Your task to perform on an android device: Search for a 1/2 in. x 1/2 in. x 24 in. 600 grit sander on Lowes.com Image 0: 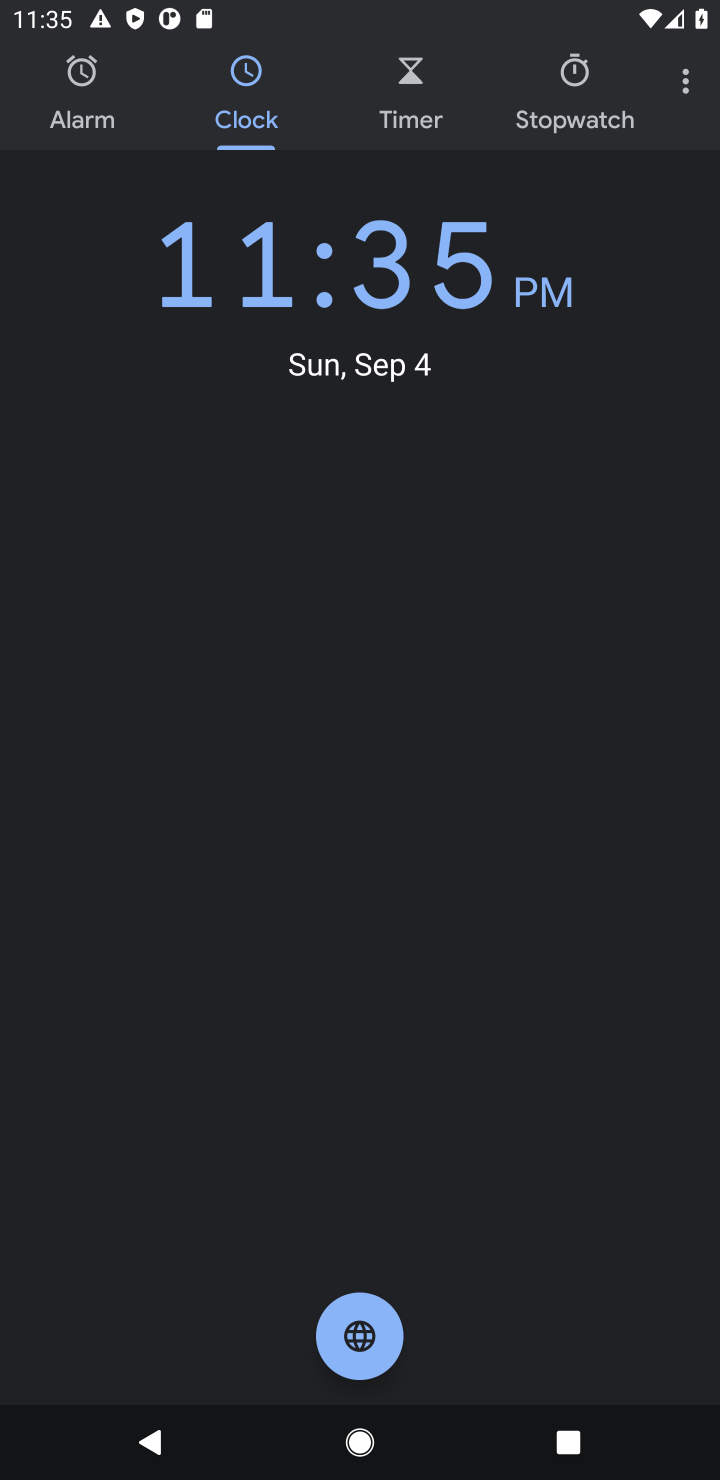
Step 0: press home button
Your task to perform on an android device: Search for a 1/2 in. x 1/2 in. x 24 in. 600 grit sander on Lowes.com Image 1: 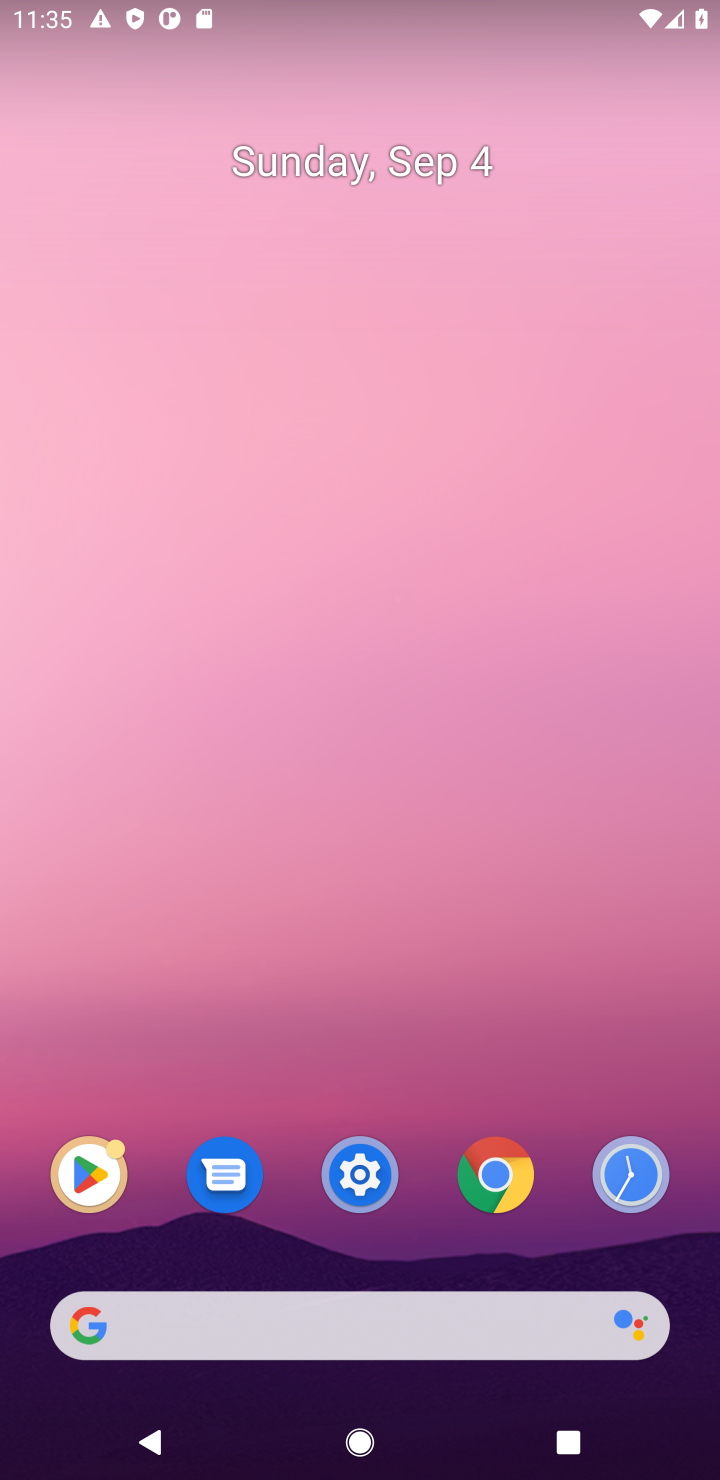
Step 1: click (346, 1323)
Your task to perform on an android device: Search for a 1/2 in. x 1/2 in. x 24 in. 600 grit sander on Lowes.com Image 2: 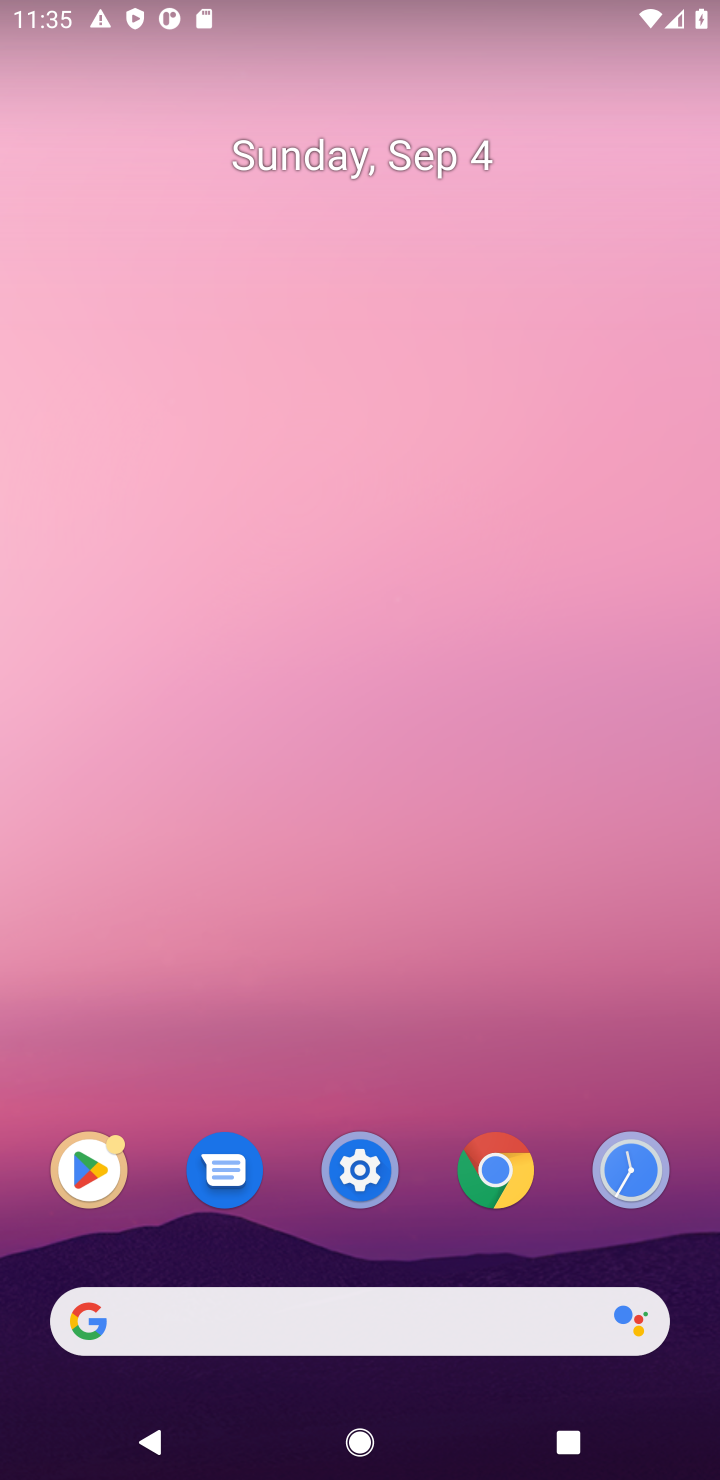
Step 2: type "Lowes.com"
Your task to perform on an android device: Search for a 1/2 in. x 1/2 in. x 24 in. 600 grit sander on Lowes.com Image 3: 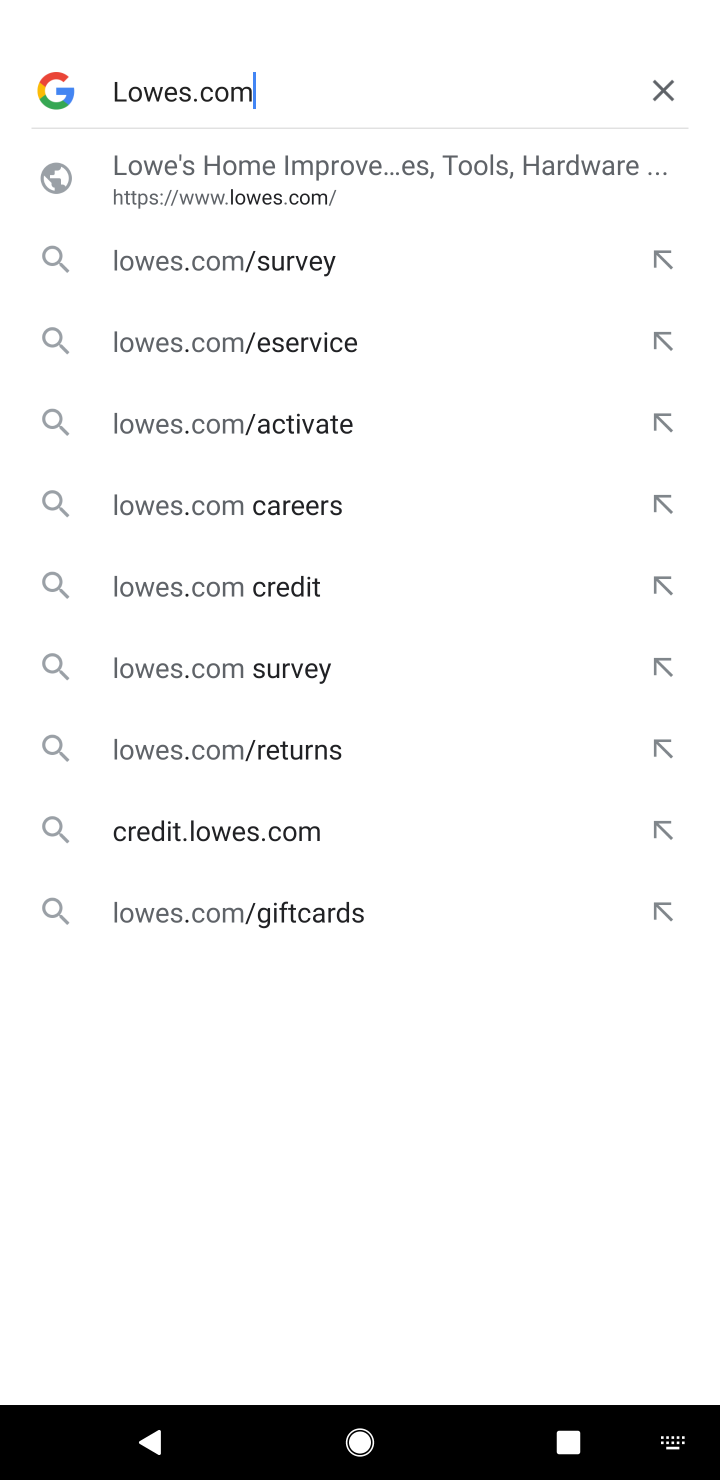
Step 3: click (357, 216)
Your task to perform on an android device: Search for a 1/2 in. x 1/2 in. x 24 in. 600 grit sander on Lowes.com Image 4: 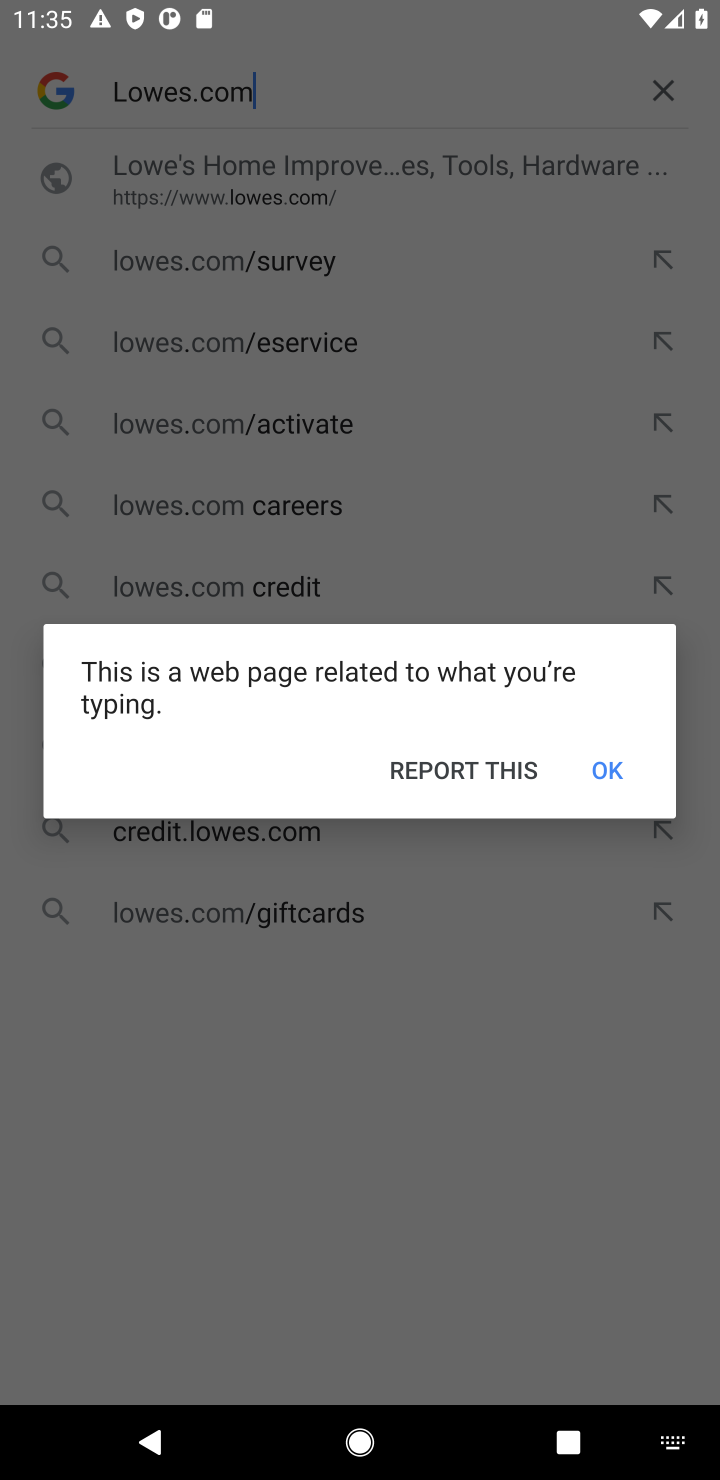
Step 4: click (617, 766)
Your task to perform on an android device: Search for a 1/2 in. x 1/2 in. x 24 in. 600 grit sander on Lowes.com Image 5: 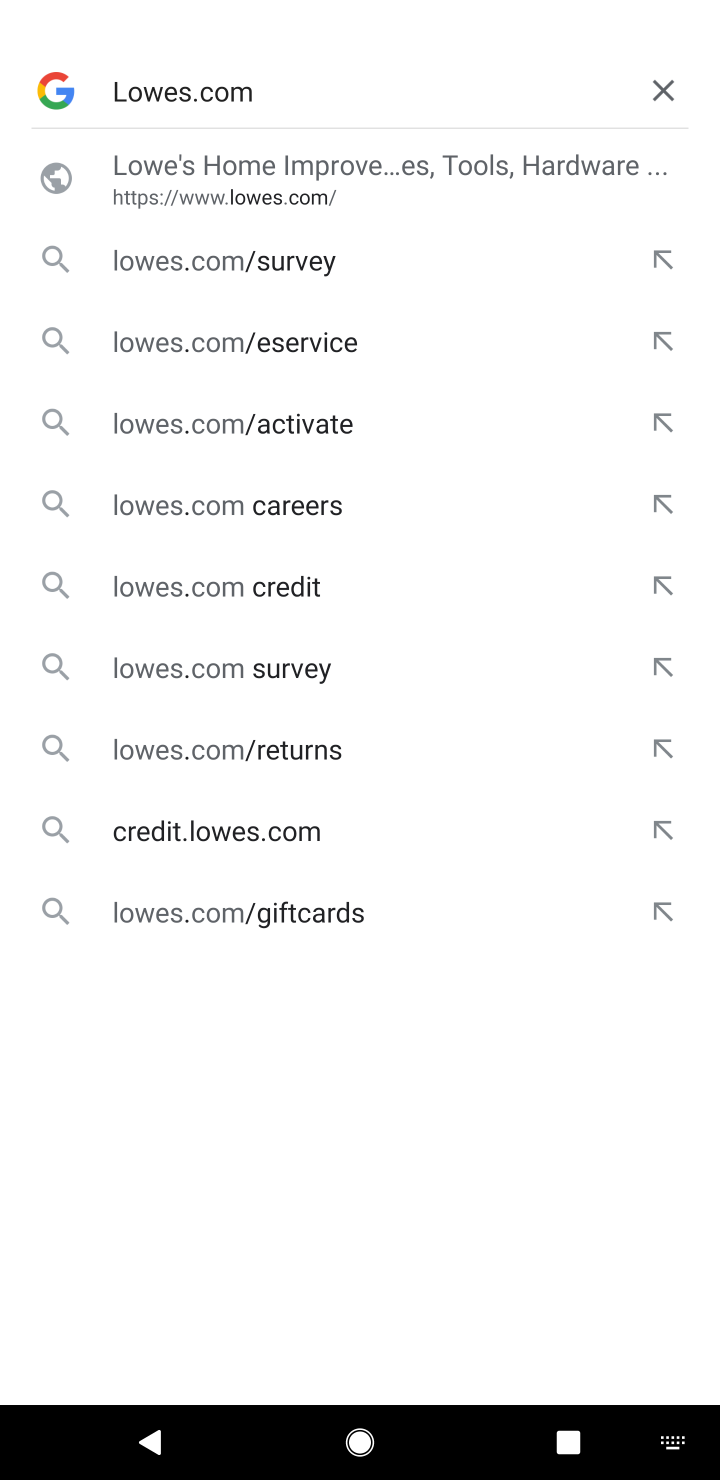
Step 5: click (308, 172)
Your task to perform on an android device: Search for a 1/2 in. x 1/2 in. x 24 in. 600 grit sander on Lowes.com Image 6: 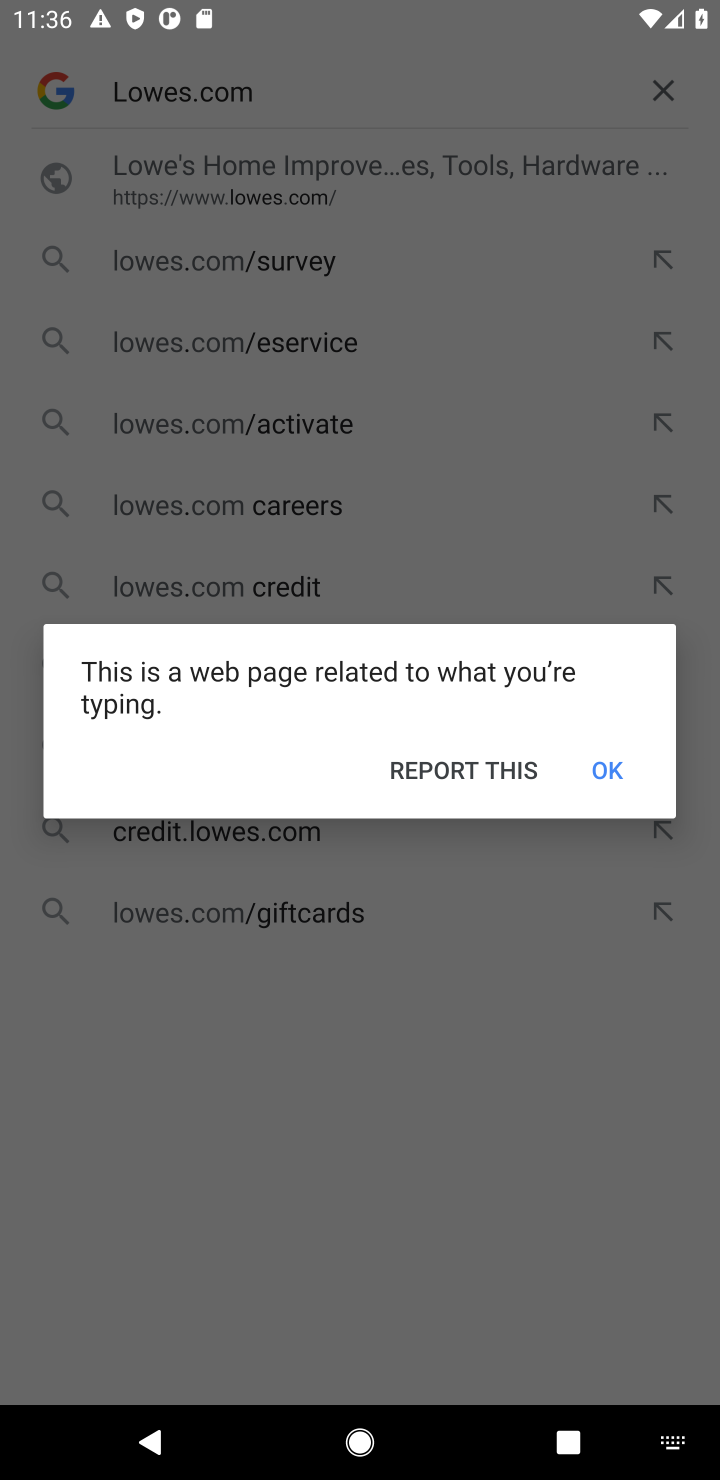
Step 6: click (618, 764)
Your task to perform on an android device: Search for a 1/2 in. x 1/2 in. x 24 in. 600 grit sander on Lowes.com Image 7: 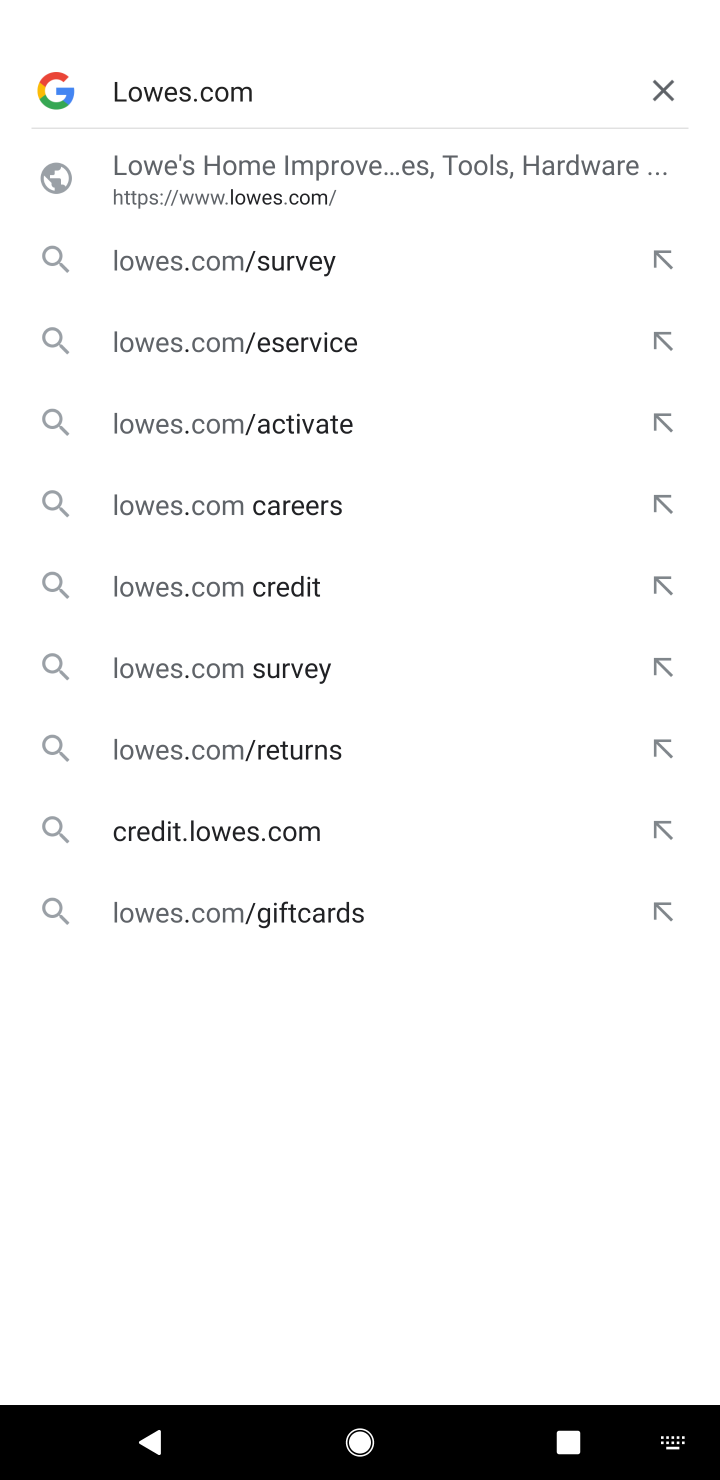
Step 7: click (384, 200)
Your task to perform on an android device: Search for a 1/2 in. x 1/2 in. x 24 in. 600 grit sander on Lowes.com Image 8: 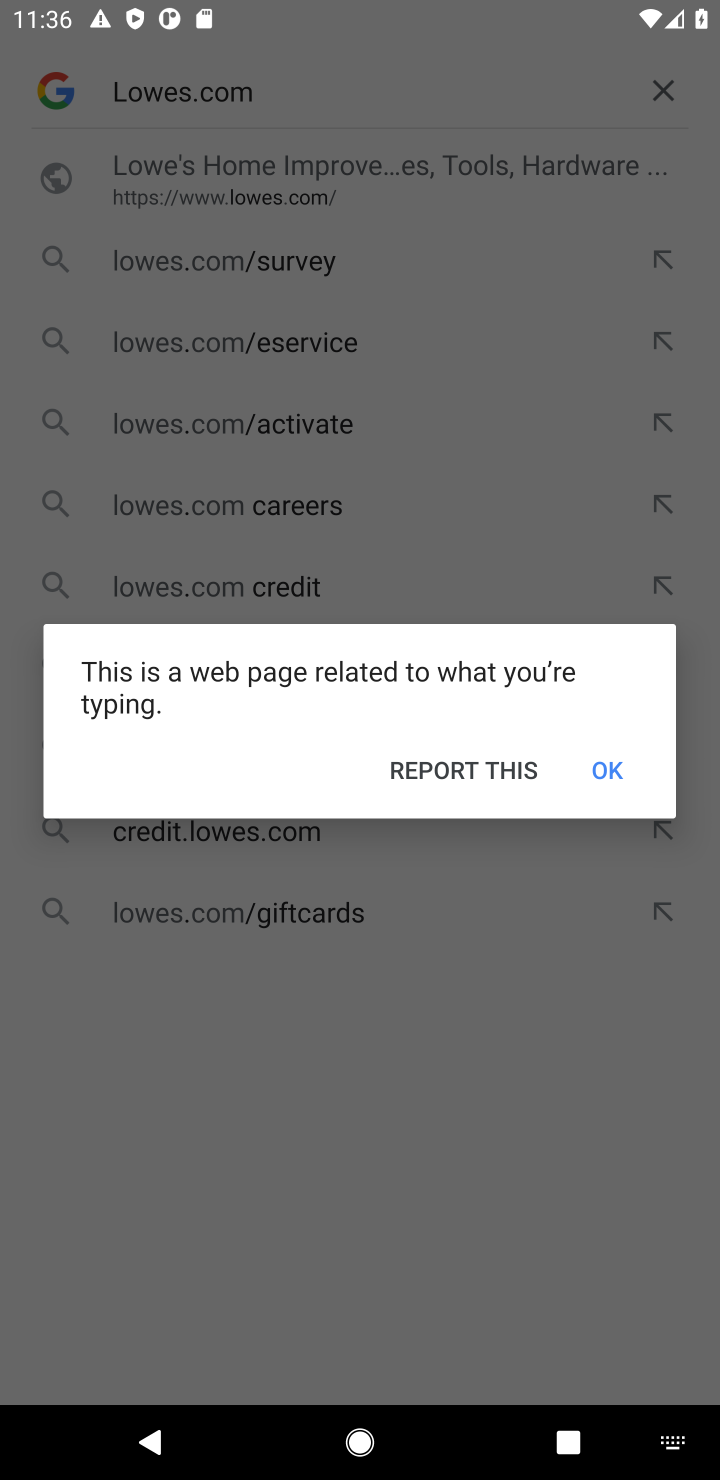
Step 8: click (579, 756)
Your task to perform on an android device: Search for a 1/2 in. x 1/2 in. x 24 in. 600 grit sander on Lowes.com Image 9: 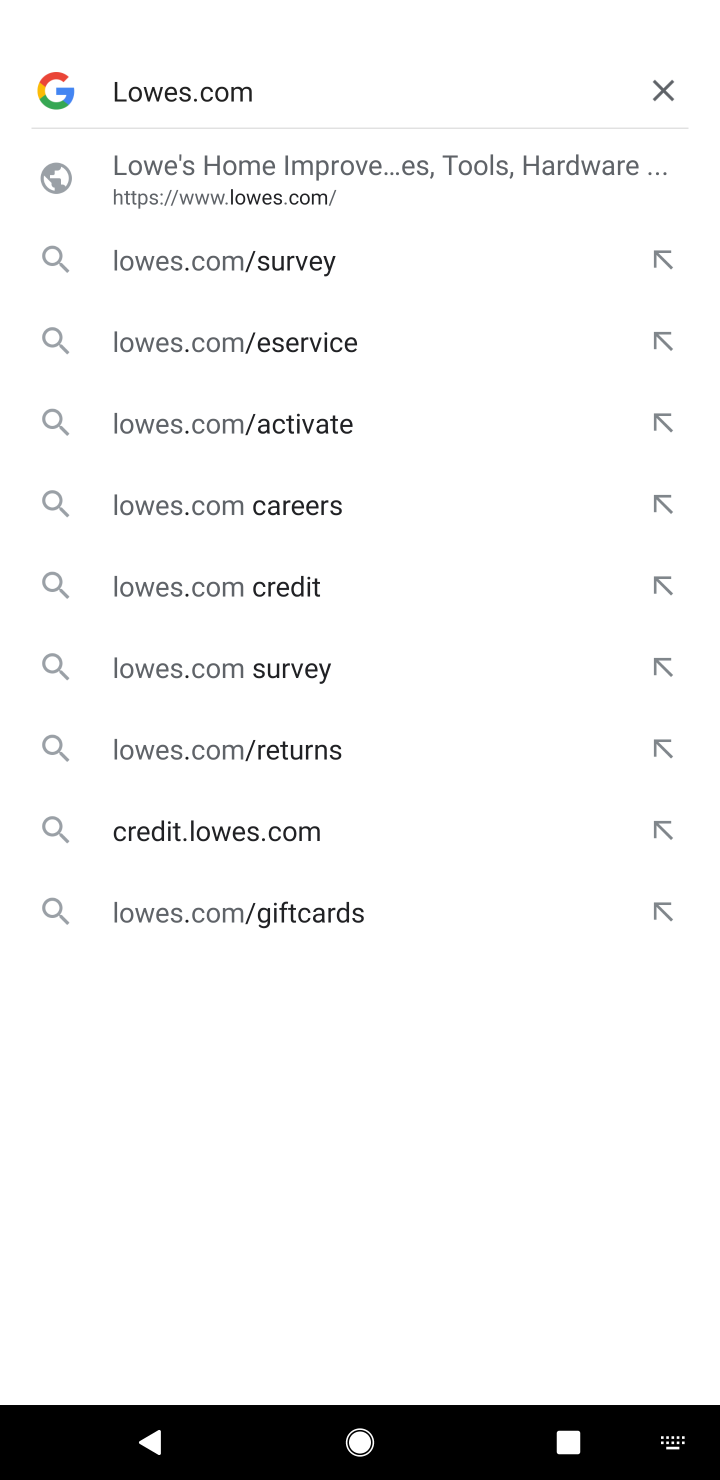
Step 9: click (365, 160)
Your task to perform on an android device: Search for a 1/2 in. x 1/2 in. x 24 in. 600 grit sander on Lowes.com Image 10: 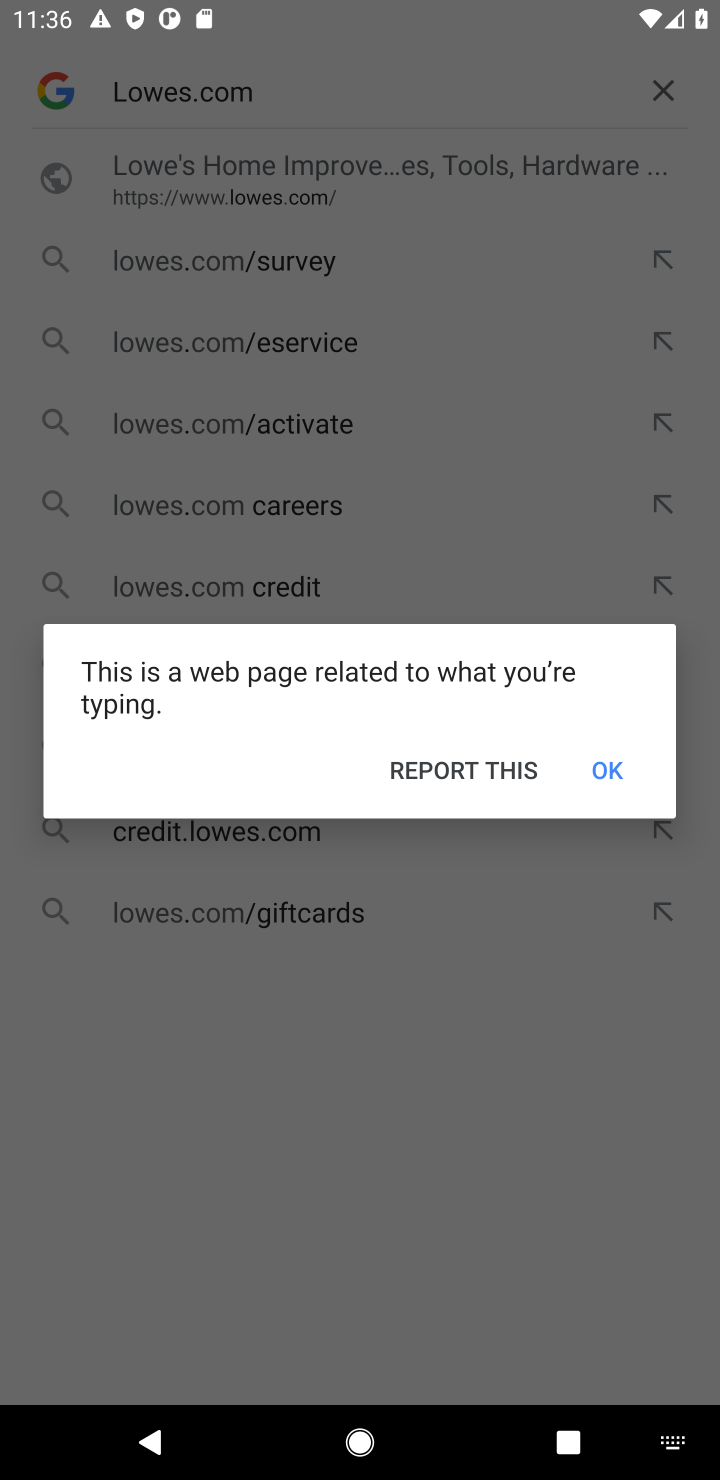
Step 10: click (585, 760)
Your task to perform on an android device: Search for a 1/2 in. x 1/2 in. x 24 in. 600 grit sander on Lowes.com Image 11: 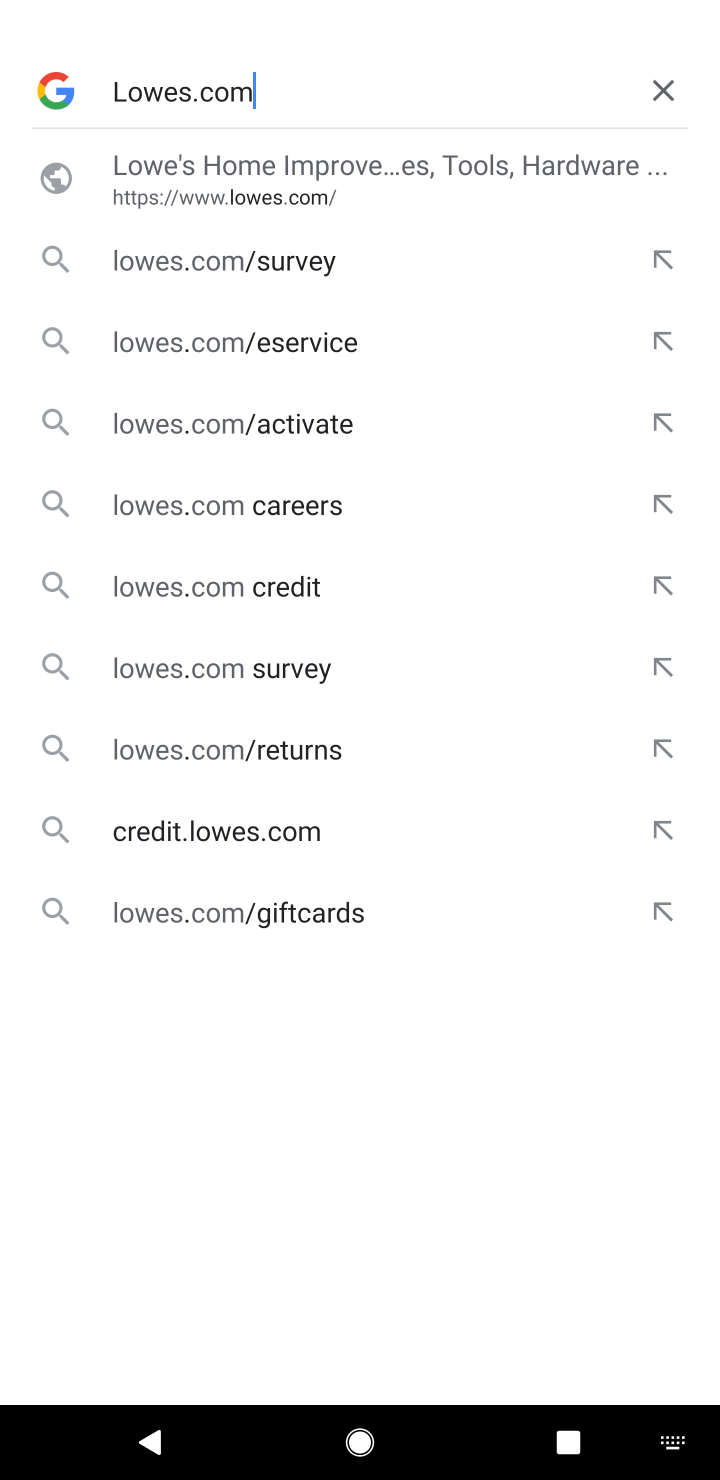
Step 11: click (312, 205)
Your task to perform on an android device: Search for a 1/2 in. x 1/2 in. x 24 in. 600 grit sander on Lowes.com Image 12: 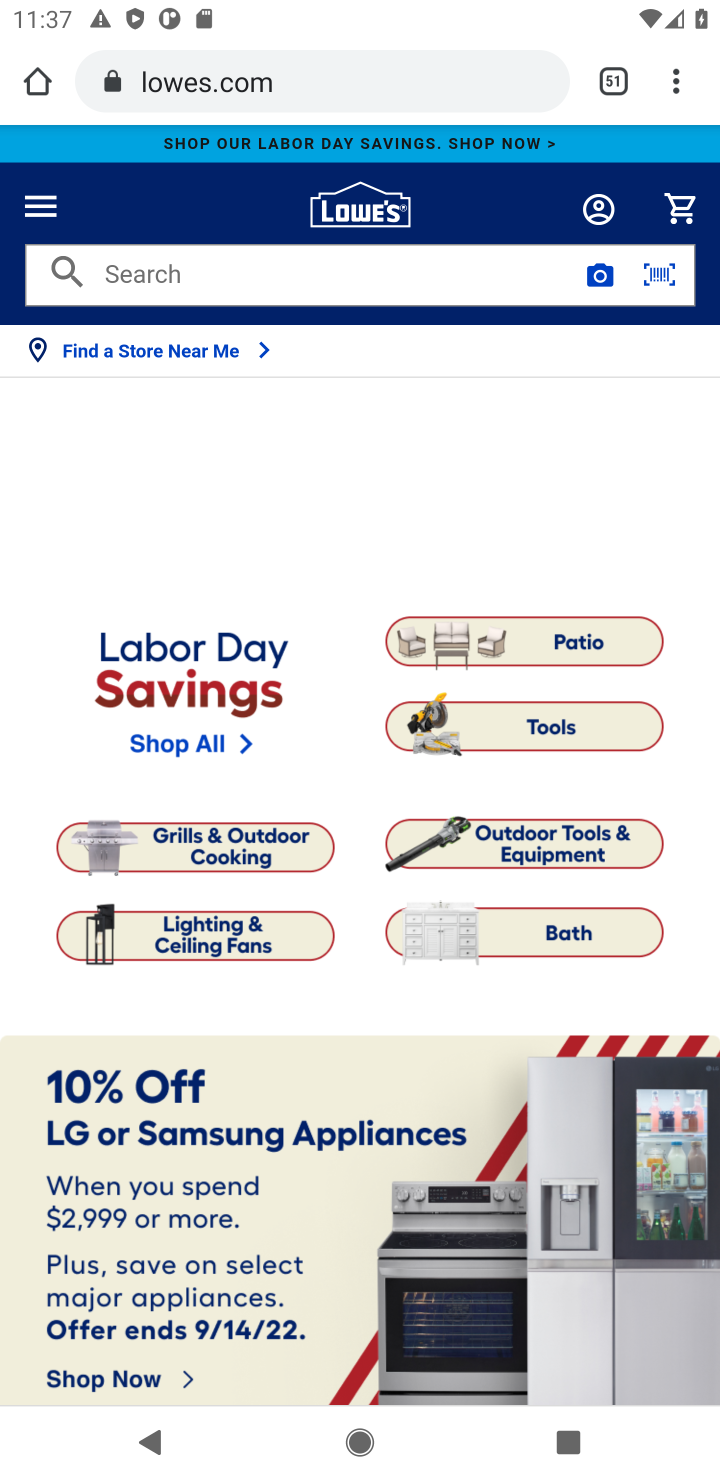
Step 12: click (356, 269)
Your task to perform on an android device: Search for a 1/2 in. x 1/2 in. x 24 in. 600 grit sander on Lowes.com Image 13: 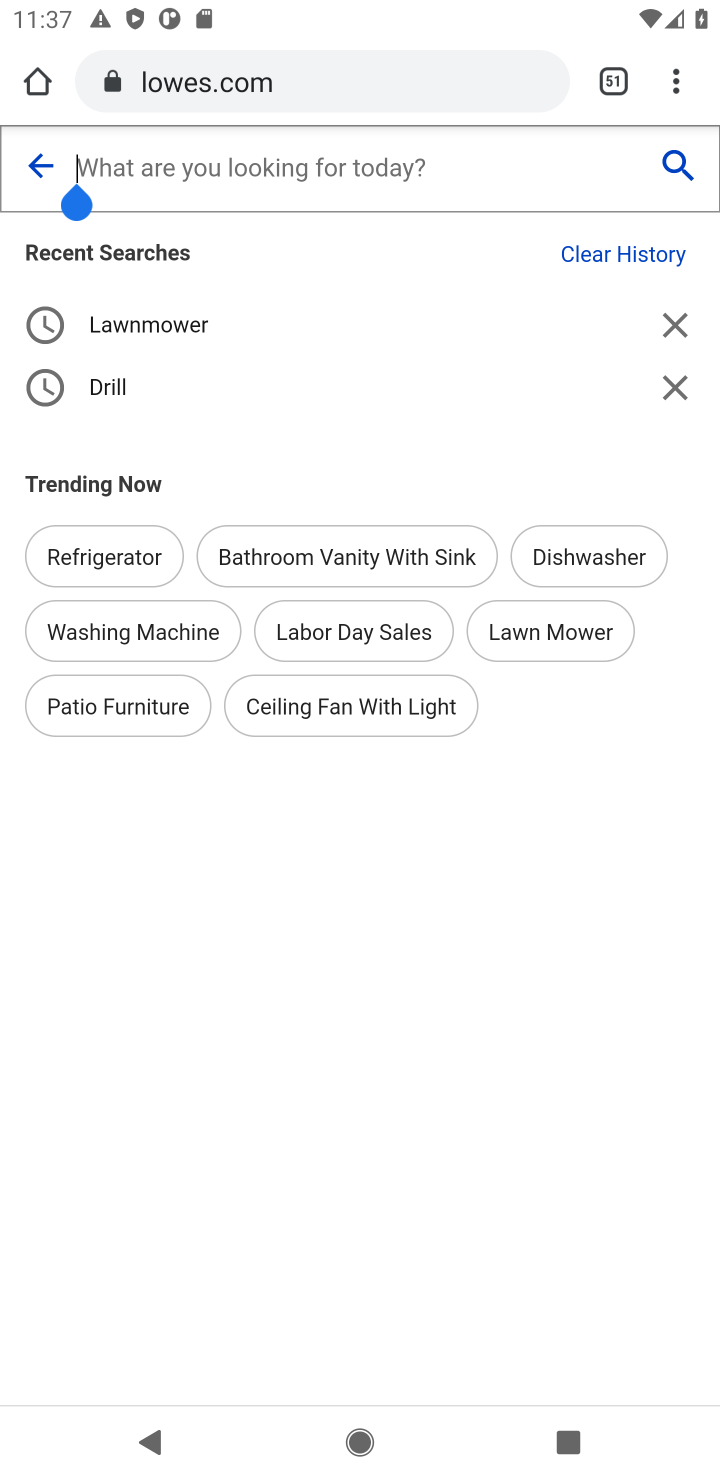
Step 13: type "1/2 in. x 1/2 in. x 24 in. 600 grit sande"
Your task to perform on an android device: Search for a 1/2 in. x 1/2 in. x 24 in. 600 grit sander on Lowes.com Image 14: 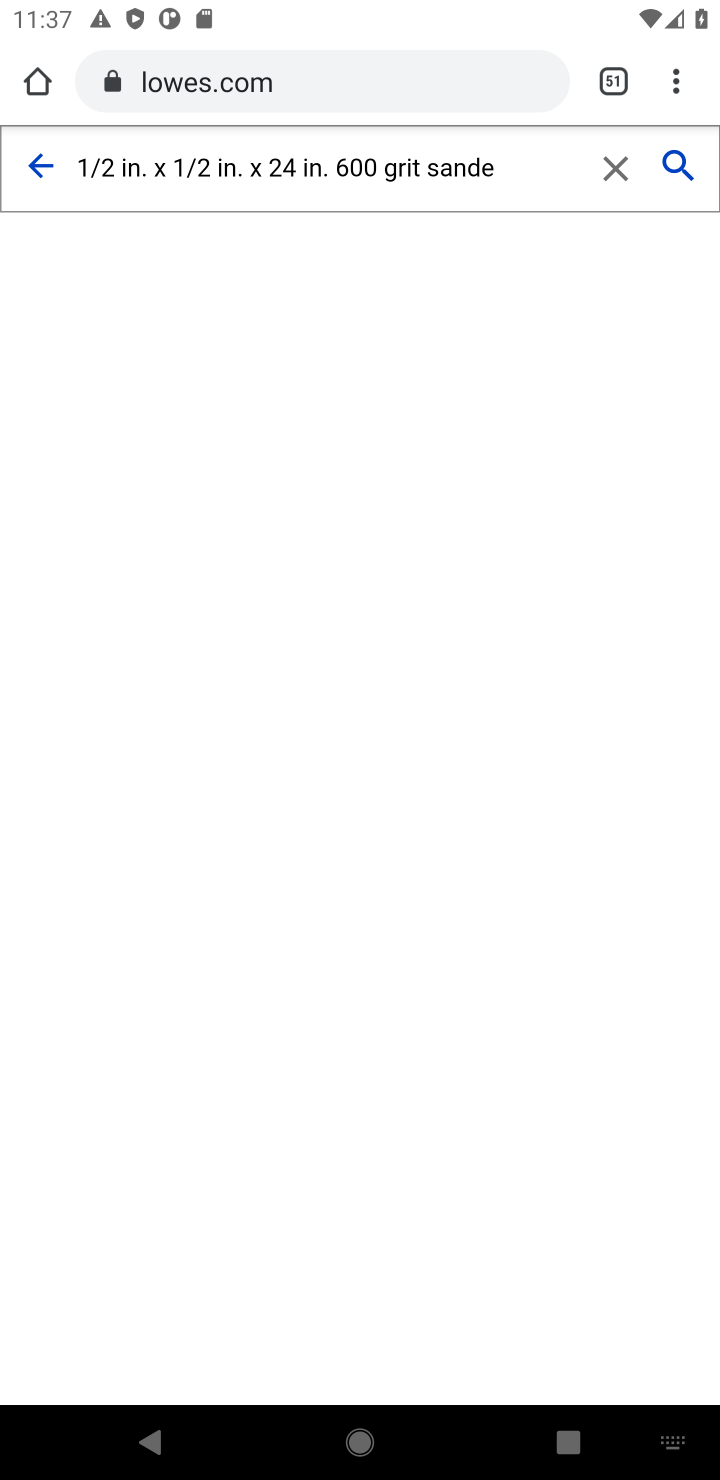
Step 14: click (690, 160)
Your task to perform on an android device: Search for a 1/2 in. x 1/2 in. x 24 in. 600 grit sander on Lowes.com Image 15: 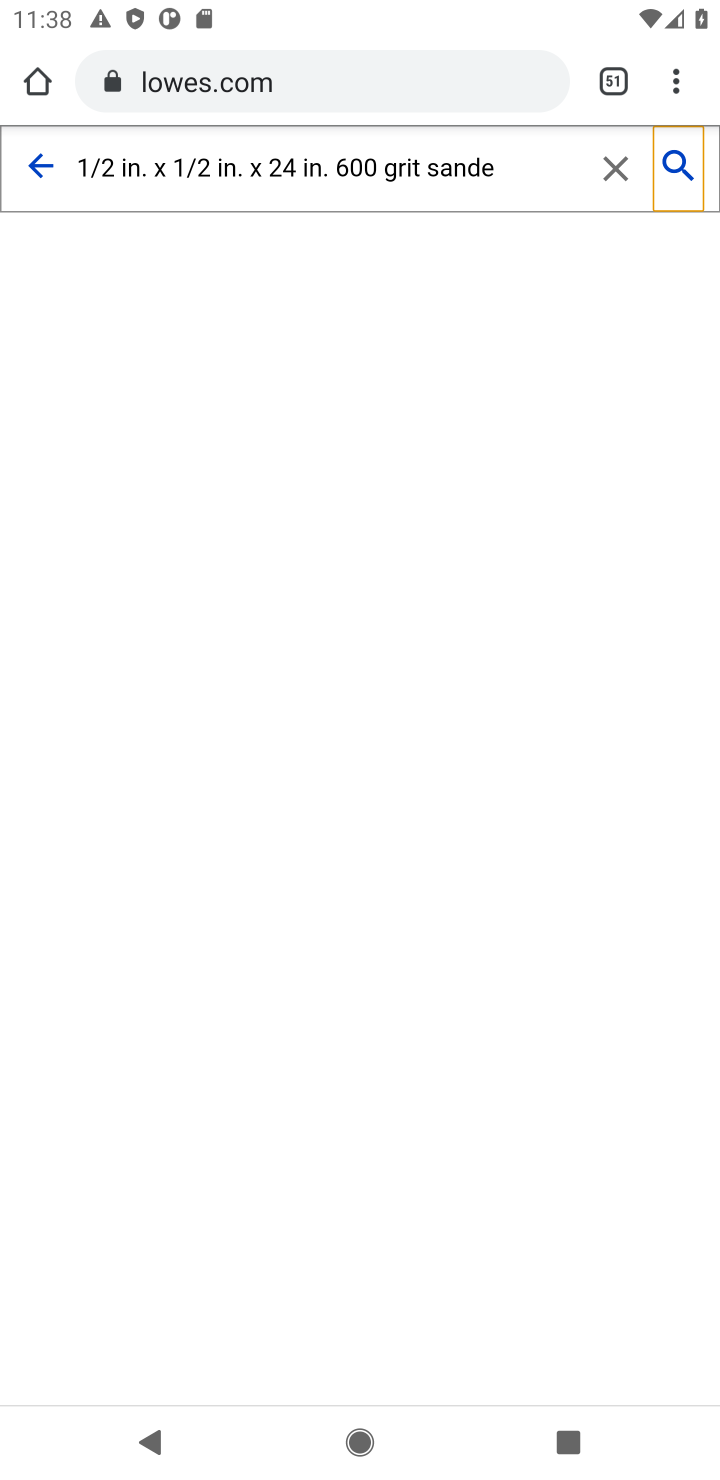
Step 15: click (659, 181)
Your task to perform on an android device: Search for a 1/2 in. x 1/2 in. x 24 in. 600 grit sander on Lowes.com Image 16: 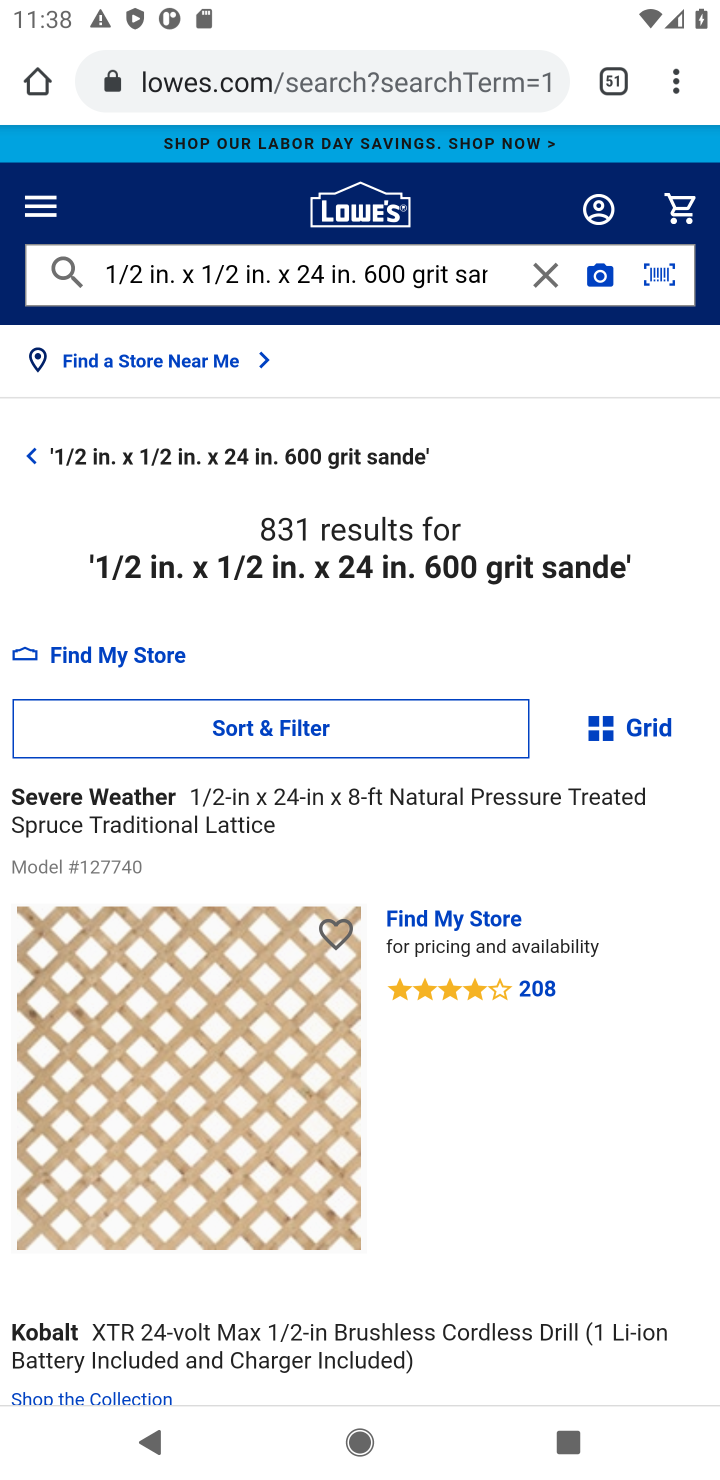
Step 16: drag from (426, 1117) to (498, 386)
Your task to perform on an android device: Search for a 1/2 in. x 1/2 in. x 24 in. 600 grit sander on Lowes.com Image 17: 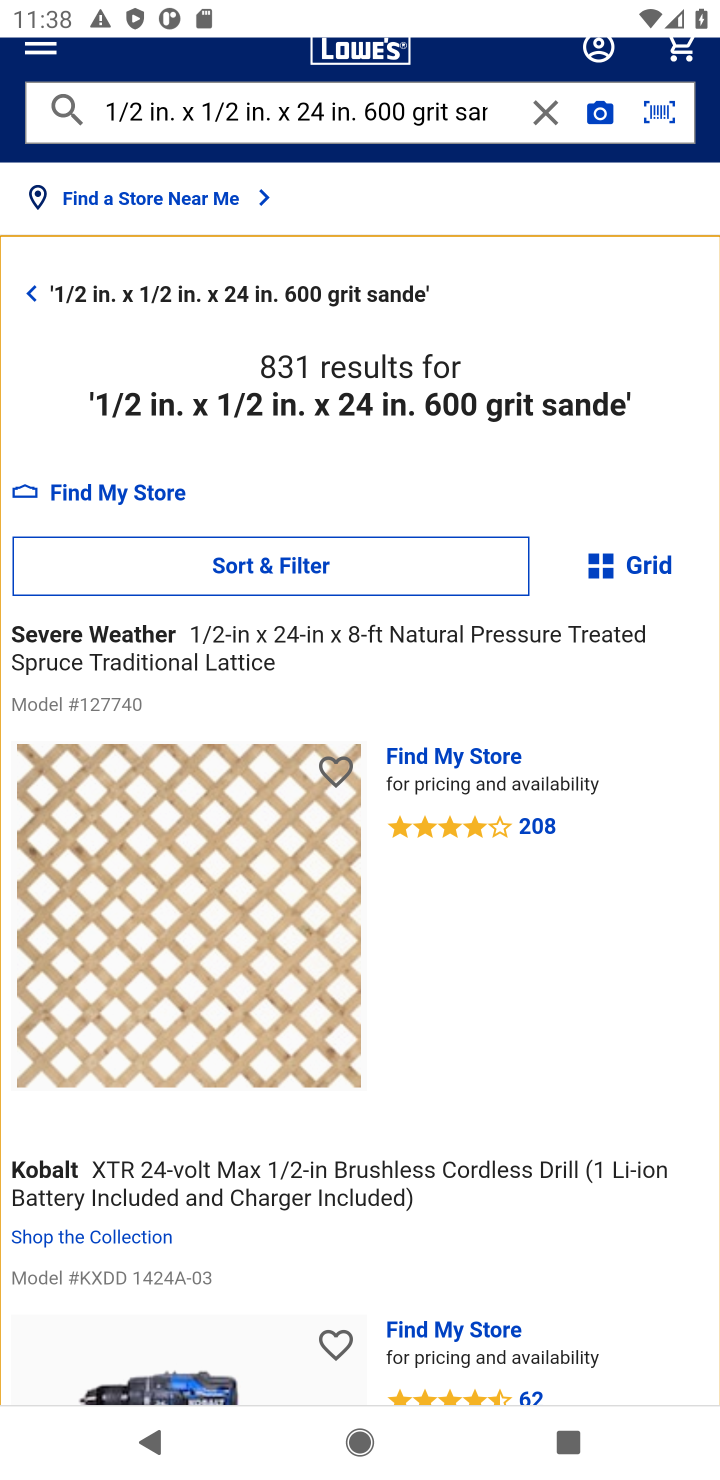
Step 17: click (494, 197)
Your task to perform on an android device: Search for a 1/2 in. x 1/2 in. x 24 in. 600 grit sander on Lowes.com Image 18: 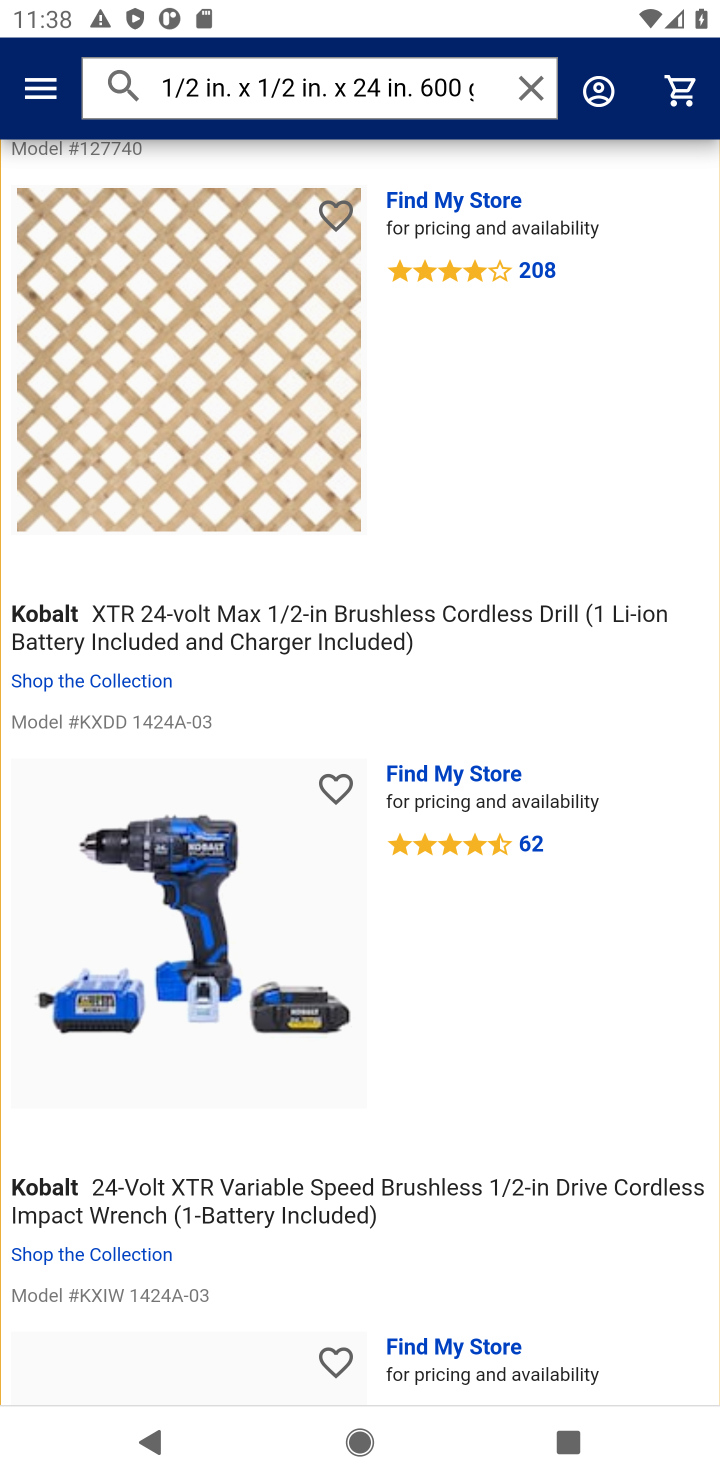
Step 18: click (517, 331)
Your task to perform on an android device: Search for a 1/2 in. x 1/2 in. x 24 in. 600 grit sander on Lowes.com Image 19: 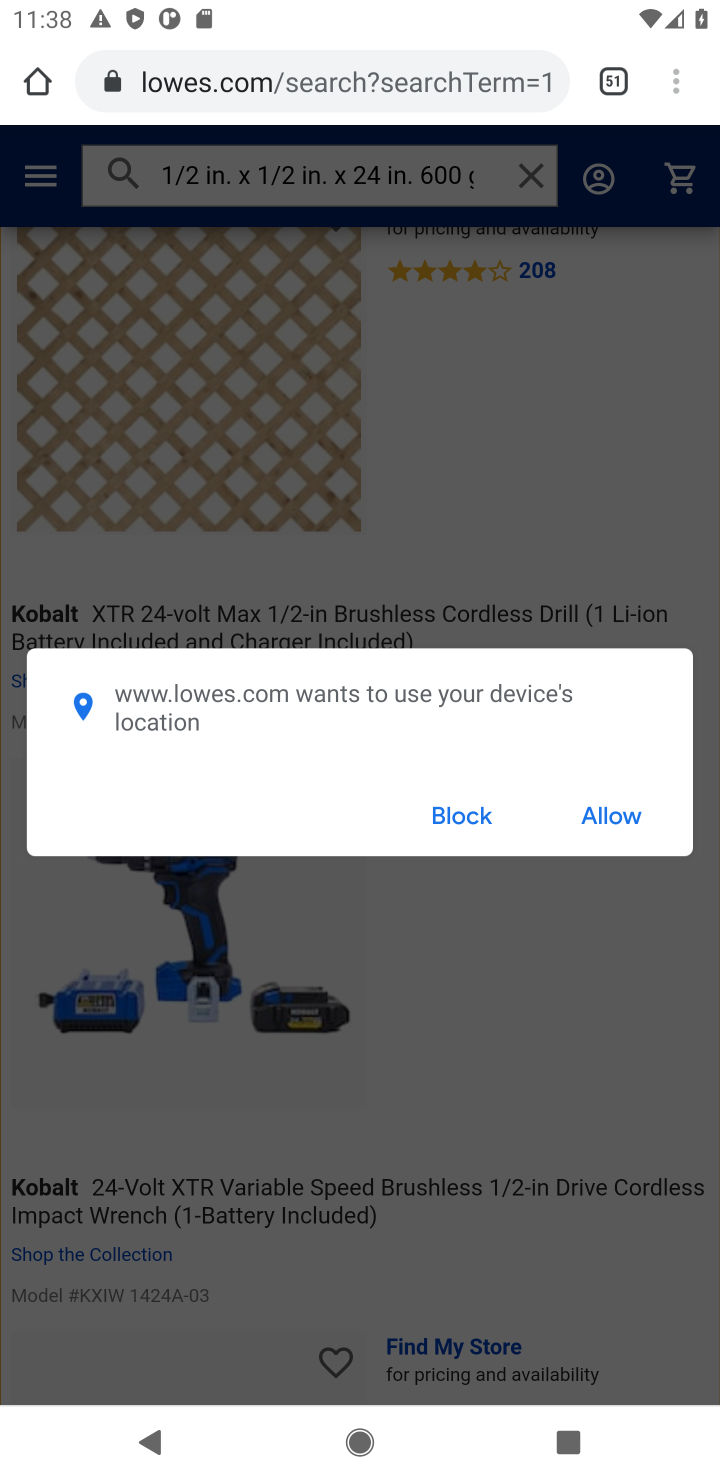
Step 19: click (584, 830)
Your task to perform on an android device: Search for a 1/2 in. x 1/2 in. x 24 in. 600 grit sander on Lowes.com Image 20: 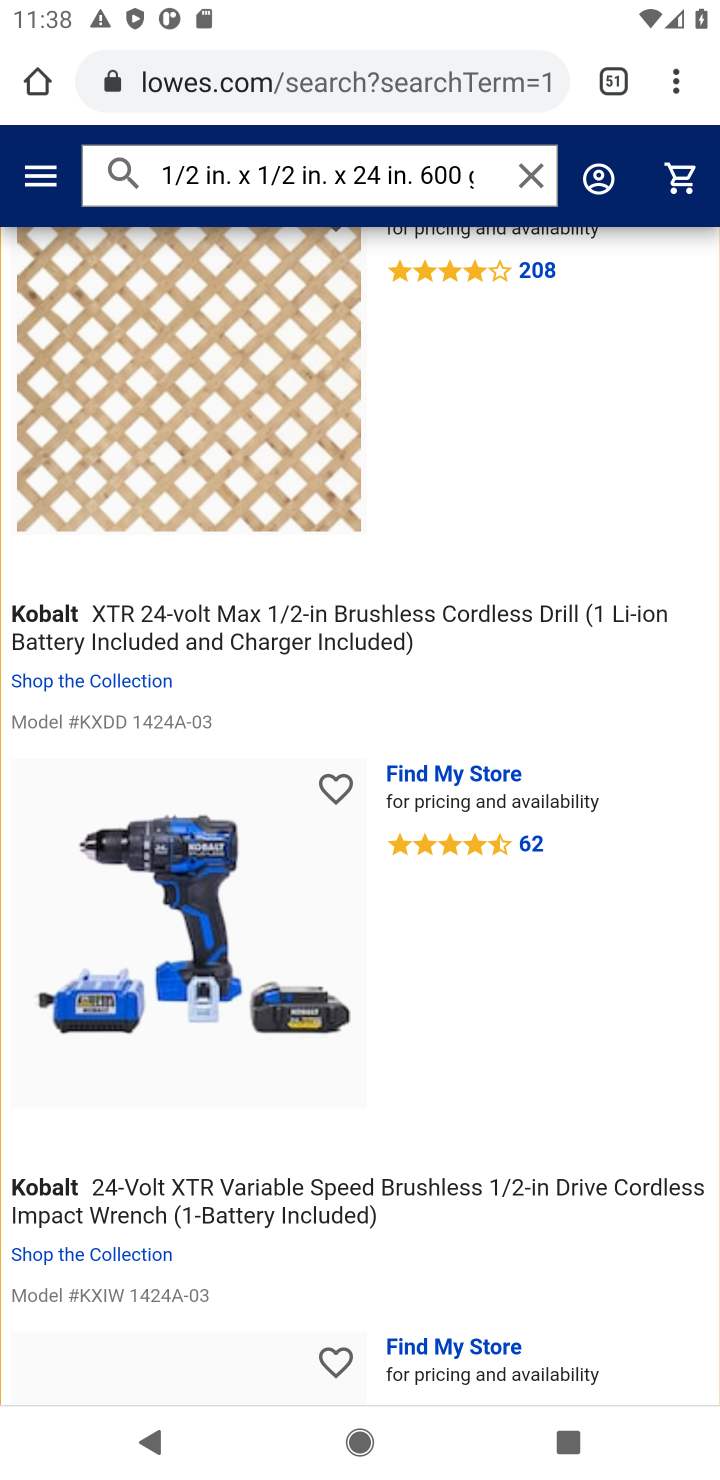
Step 20: task complete